Your task to perform on an android device: snooze an email in the gmail app Image 0: 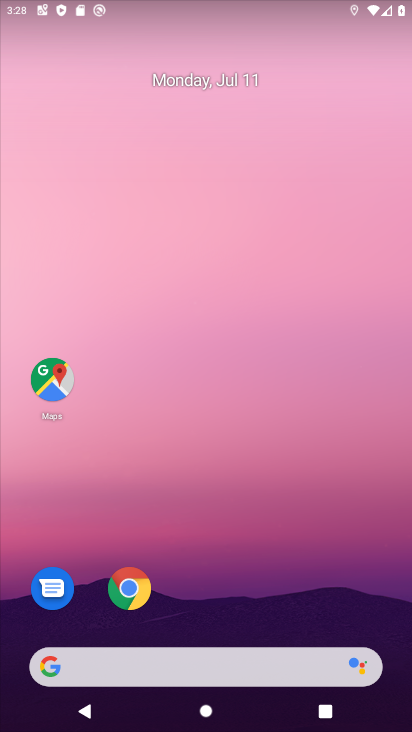
Step 0: drag from (211, 609) to (298, 130)
Your task to perform on an android device: snooze an email in the gmail app Image 1: 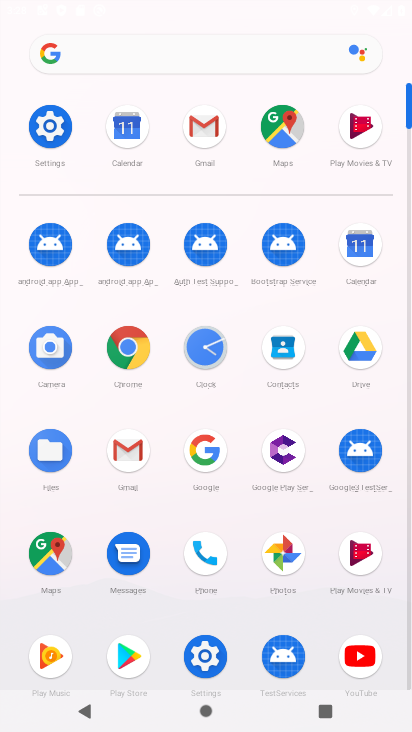
Step 1: click (128, 456)
Your task to perform on an android device: snooze an email in the gmail app Image 2: 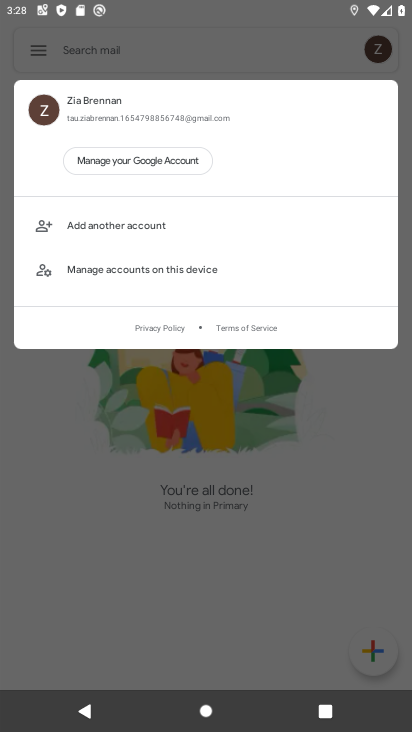
Step 2: click (80, 432)
Your task to perform on an android device: snooze an email in the gmail app Image 3: 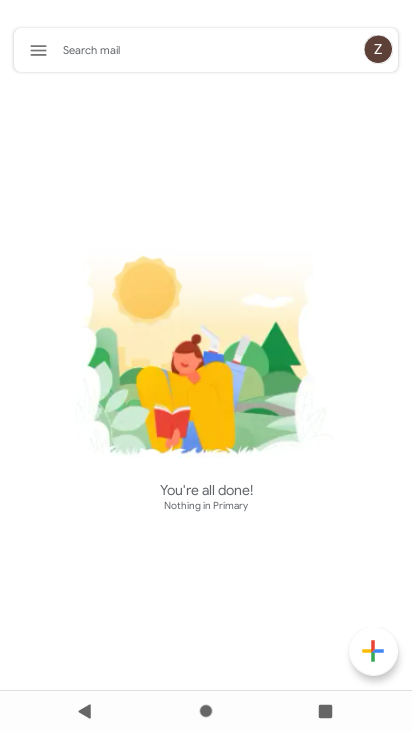
Step 3: click (37, 46)
Your task to perform on an android device: snooze an email in the gmail app Image 4: 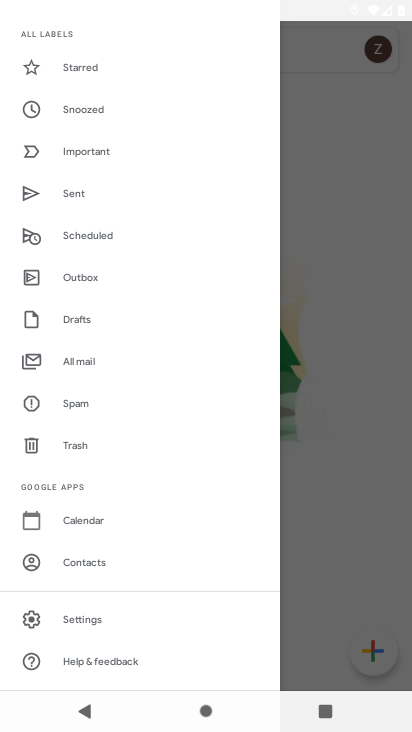
Step 4: click (70, 351)
Your task to perform on an android device: snooze an email in the gmail app Image 5: 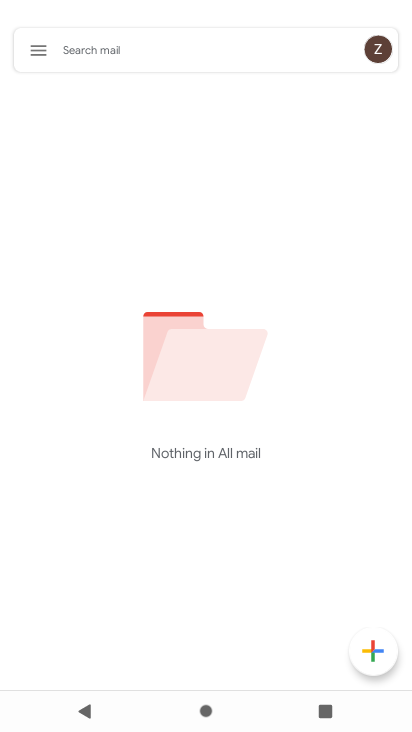
Step 5: task complete